Your task to perform on an android device: check data usage Image 0: 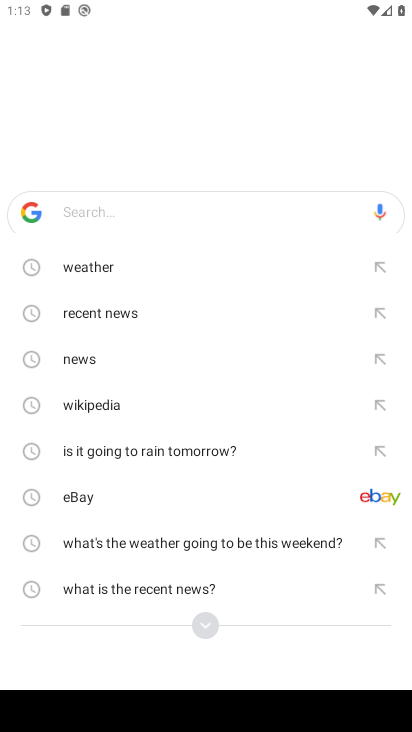
Step 0: press home button
Your task to perform on an android device: check data usage Image 1: 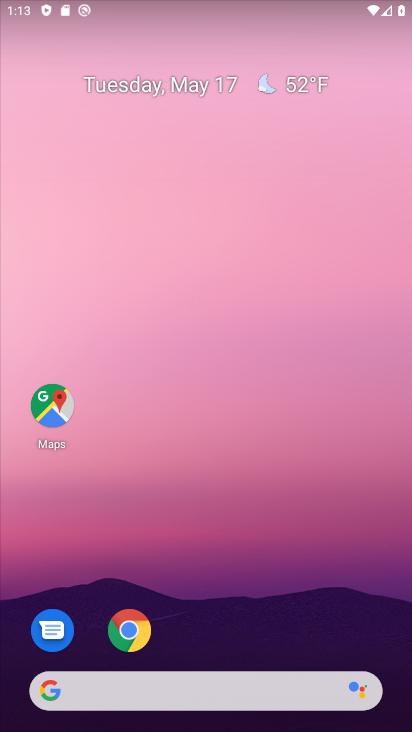
Step 1: drag from (209, 519) to (259, 202)
Your task to perform on an android device: check data usage Image 2: 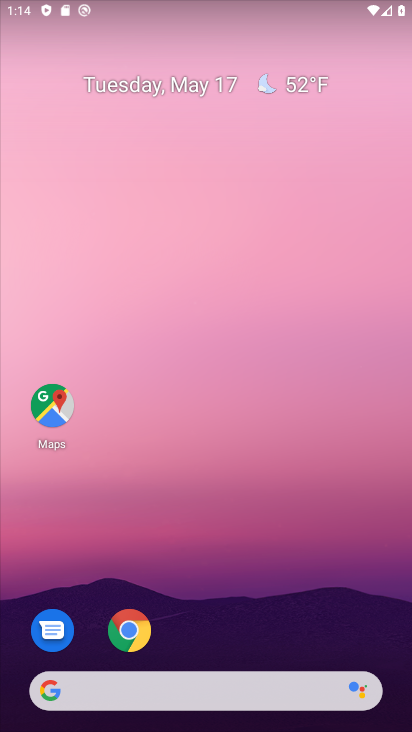
Step 2: drag from (192, 645) to (283, 72)
Your task to perform on an android device: check data usage Image 3: 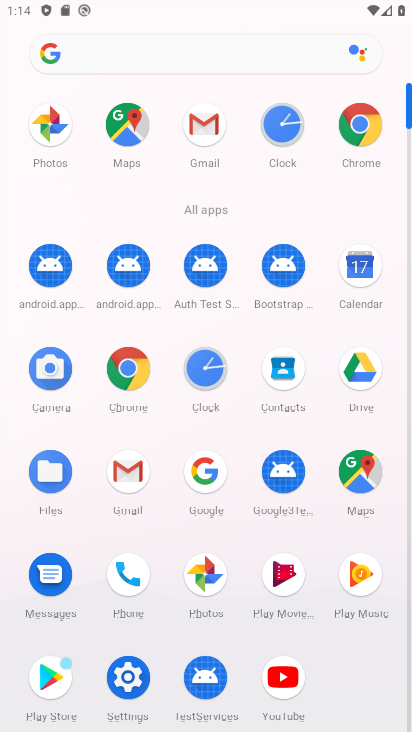
Step 3: click (134, 698)
Your task to perform on an android device: check data usage Image 4: 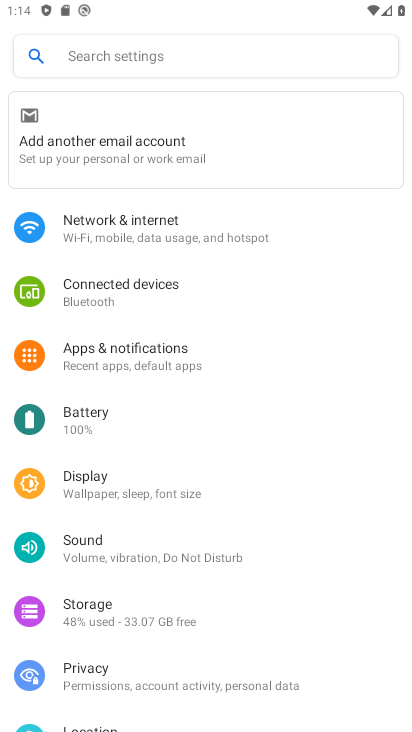
Step 4: click (121, 234)
Your task to perform on an android device: check data usage Image 5: 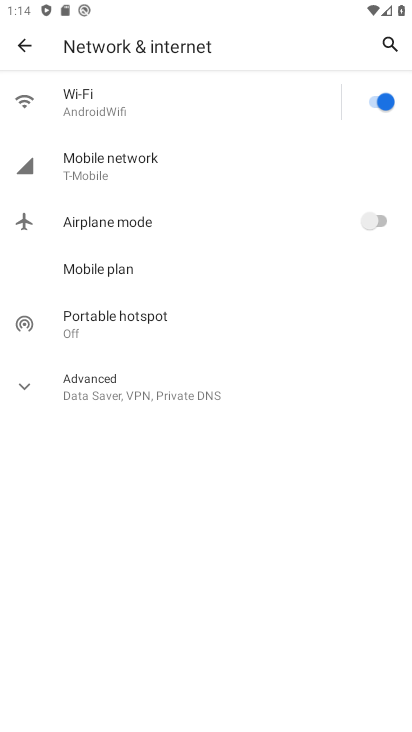
Step 5: click (153, 167)
Your task to perform on an android device: check data usage Image 6: 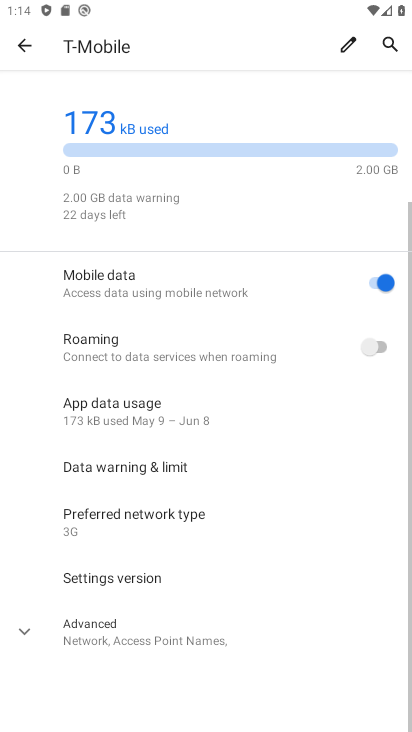
Step 6: click (108, 416)
Your task to perform on an android device: check data usage Image 7: 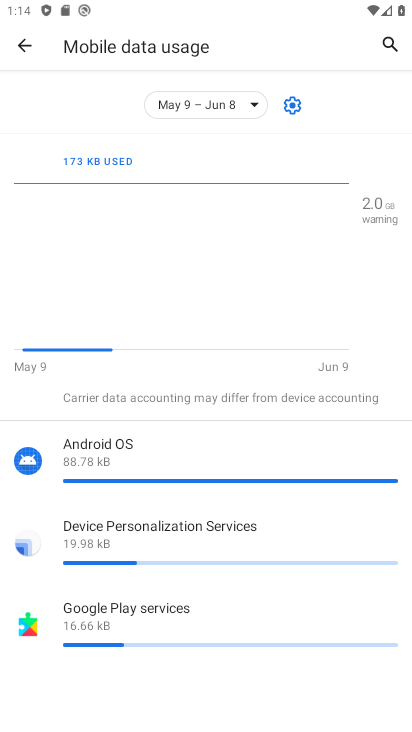
Step 7: task complete